Your task to perform on an android device: Set the phone to "Do not disturb". Image 0: 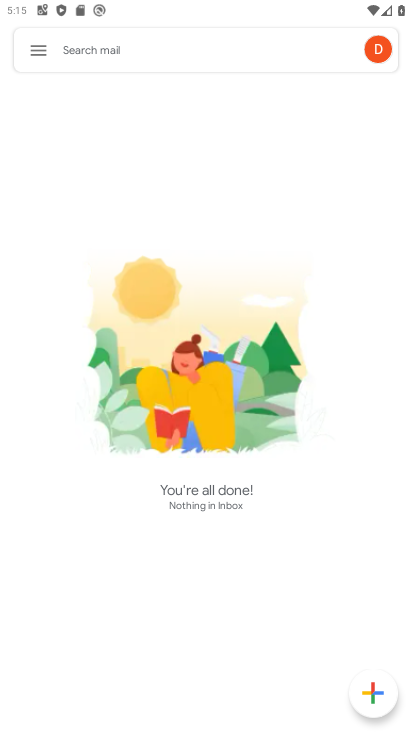
Step 0: press back button
Your task to perform on an android device: Set the phone to "Do not disturb". Image 1: 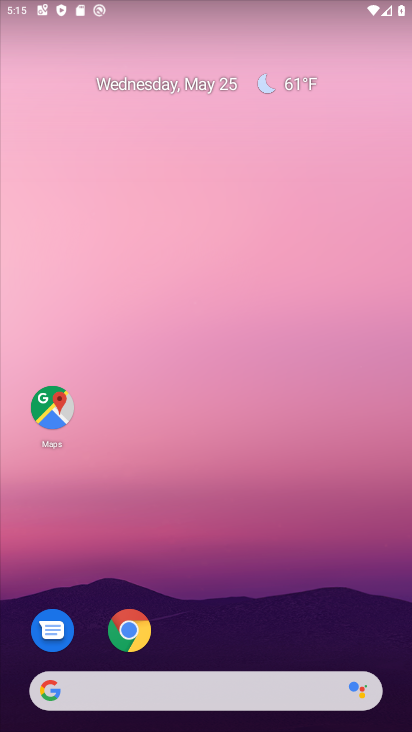
Step 1: drag from (189, 6) to (204, 530)
Your task to perform on an android device: Set the phone to "Do not disturb". Image 2: 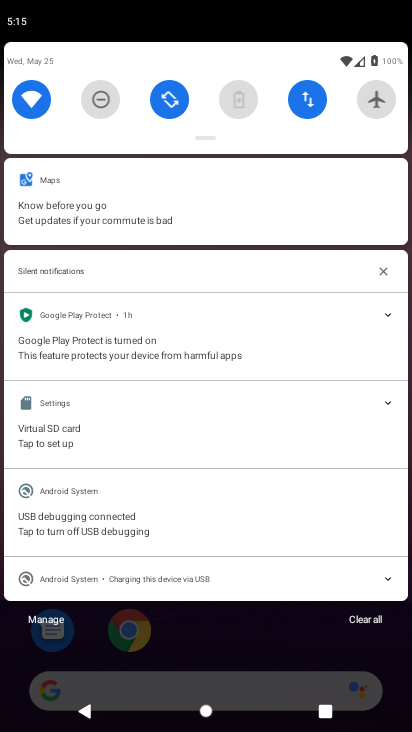
Step 2: click (98, 92)
Your task to perform on an android device: Set the phone to "Do not disturb". Image 3: 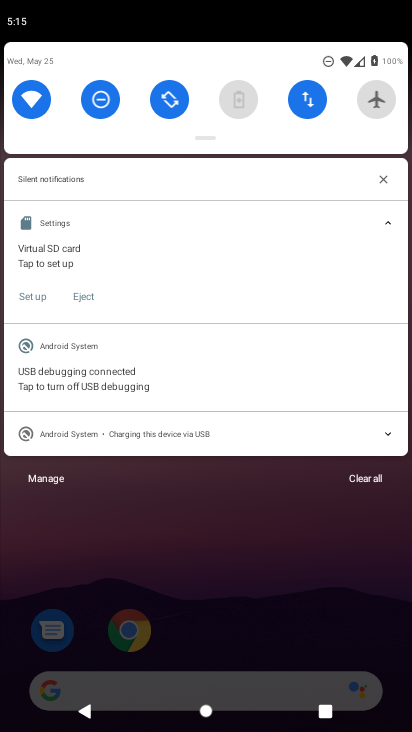
Step 3: task complete